Your task to perform on an android device: Open Android settings Image 0: 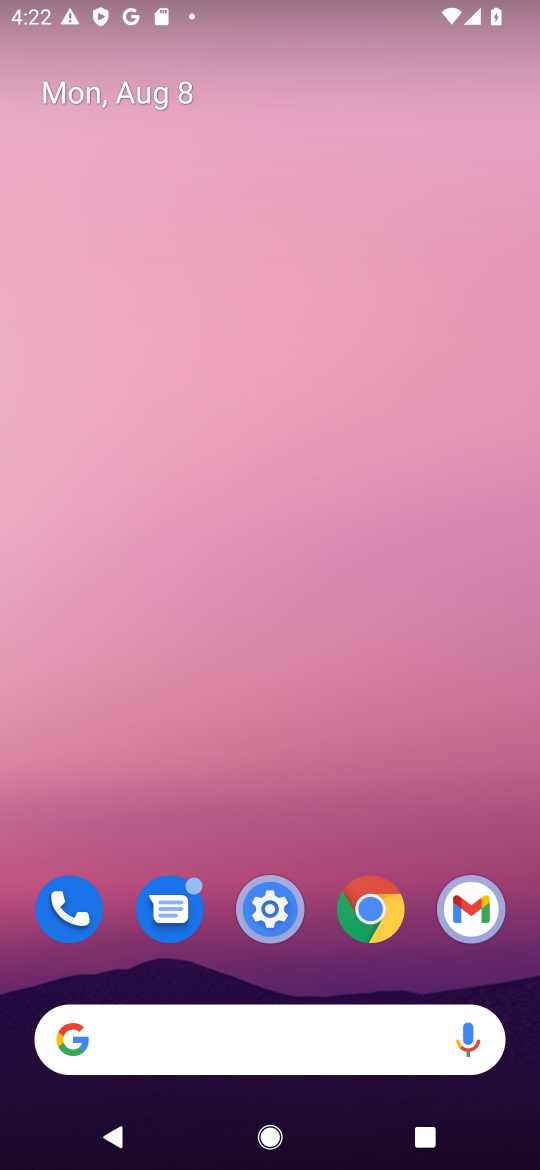
Step 0: click (267, 906)
Your task to perform on an android device: Open Android settings Image 1: 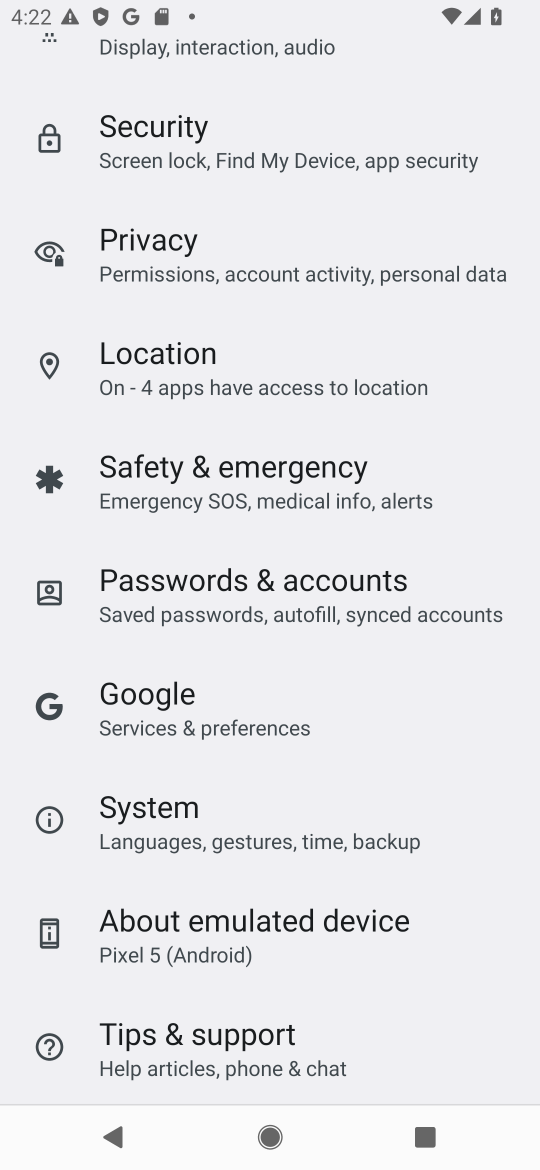
Step 1: task complete